Your task to perform on an android device: find snoozed emails in the gmail app Image 0: 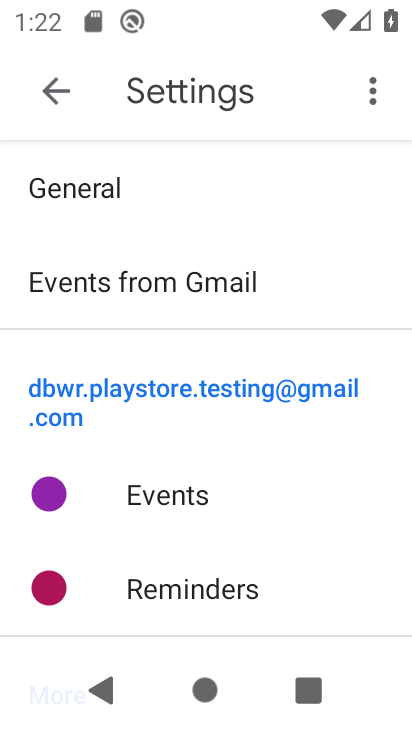
Step 0: press home button
Your task to perform on an android device: find snoozed emails in the gmail app Image 1: 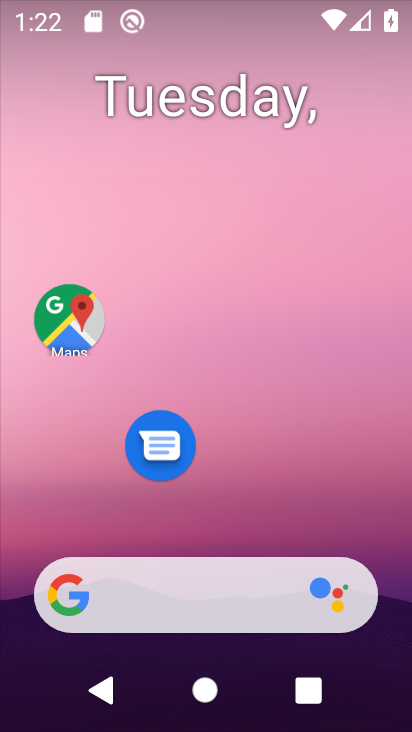
Step 1: drag from (229, 468) to (153, 99)
Your task to perform on an android device: find snoozed emails in the gmail app Image 2: 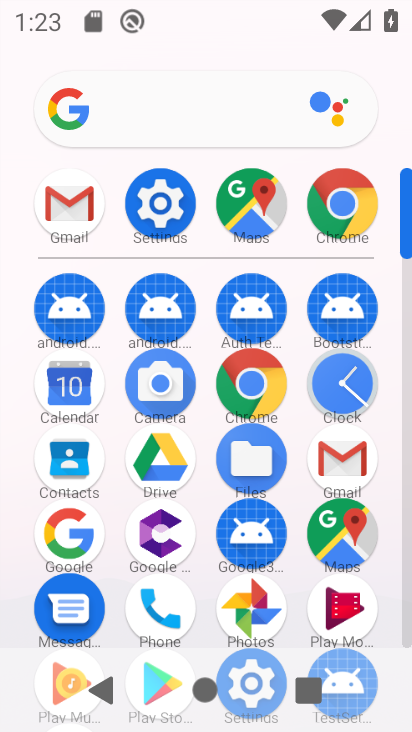
Step 2: click (63, 189)
Your task to perform on an android device: find snoozed emails in the gmail app Image 3: 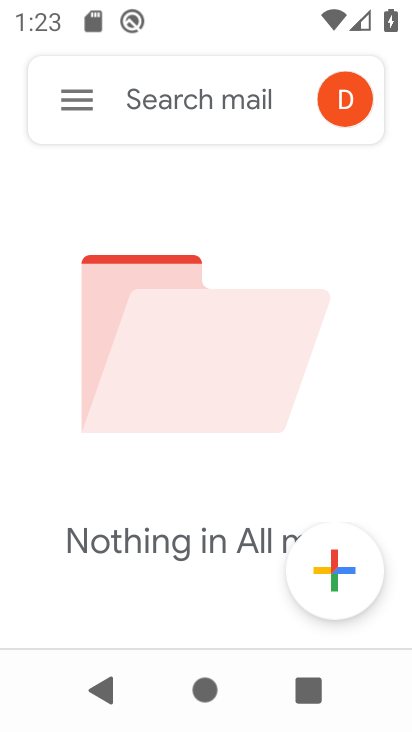
Step 3: click (70, 88)
Your task to perform on an android device: find snoozed emails in the gmail app Image 4: 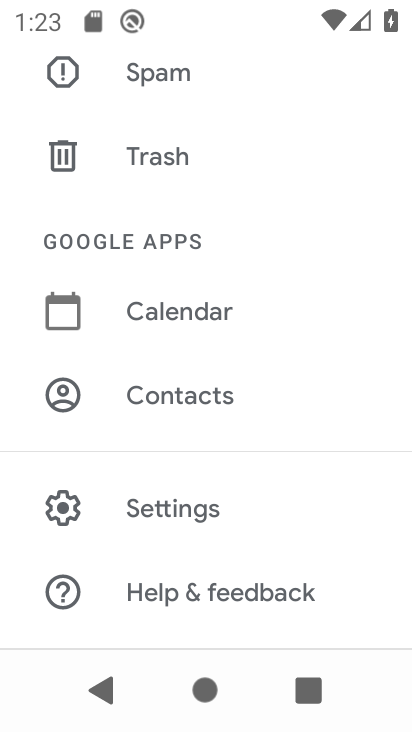
Step 4: drag from (189, 153) to (178, 613)
Your task to perform on an android device: find snoozed emails in the gmail app Image 5: 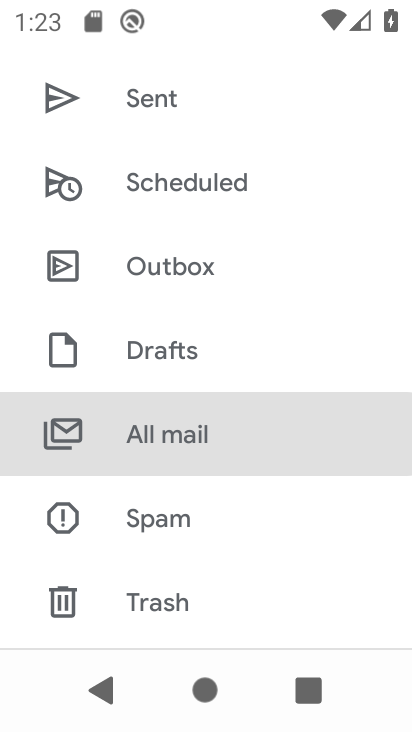
Step 5: drag from (251, 213) to (210, 692)
Your task to perform on an android device: find snoozed emails in the gmail app Image 6: 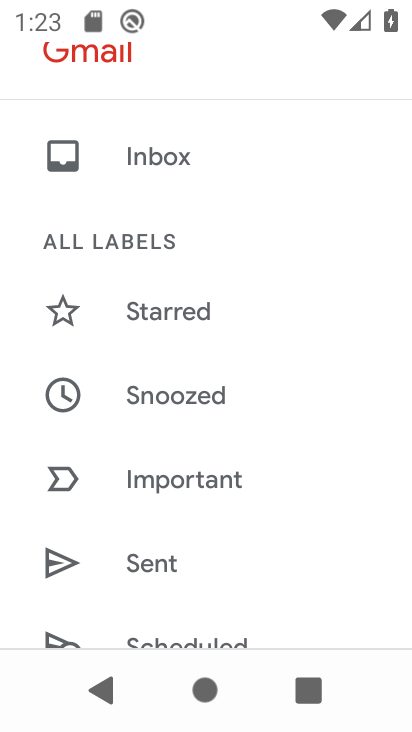
Step 6: click (147, 389)
Your task to perform on an android device: find snoozed emails in the gmail app Image 7: 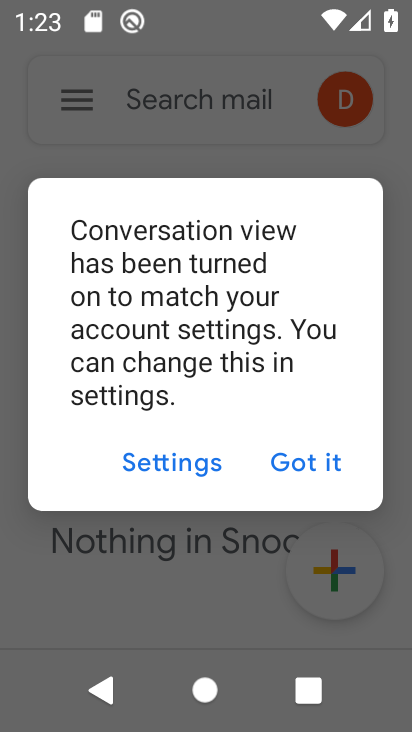
Step 7: click (287, 451)
Your task to perform on an android device: find snoozed emails in the gmail app Image 8: 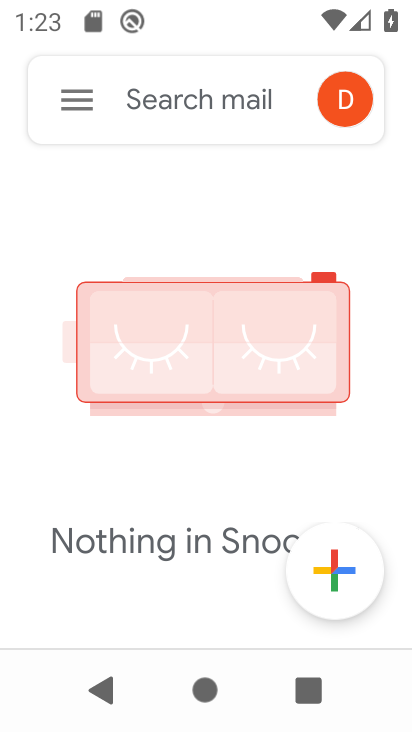
Step 8: task complete